Your task to perform on an android device: check storage Image 0: 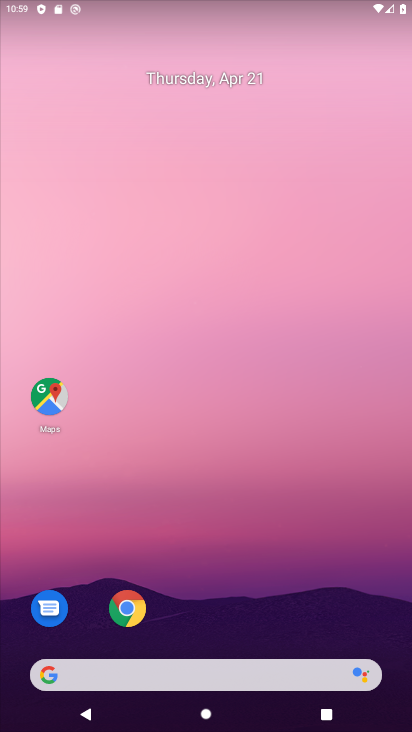
Step 0: drag from (113, 625) to (194, 206)
Your task to perform on an android device: check storage Image 1: 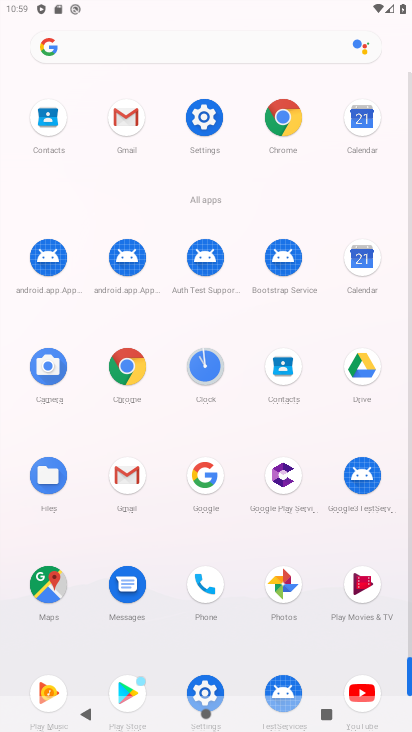
Step 1: click (201, 688)
Your task to perform on an android device: check storage Image 2: 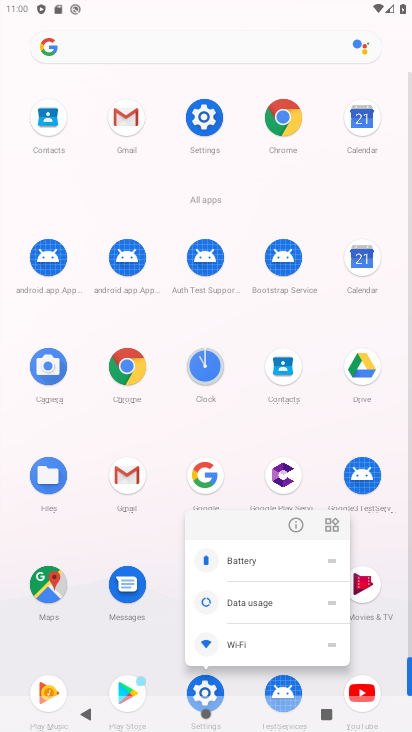
Step 2: click (288, 525)
Your task to perform on an android device: check storage Image 3: 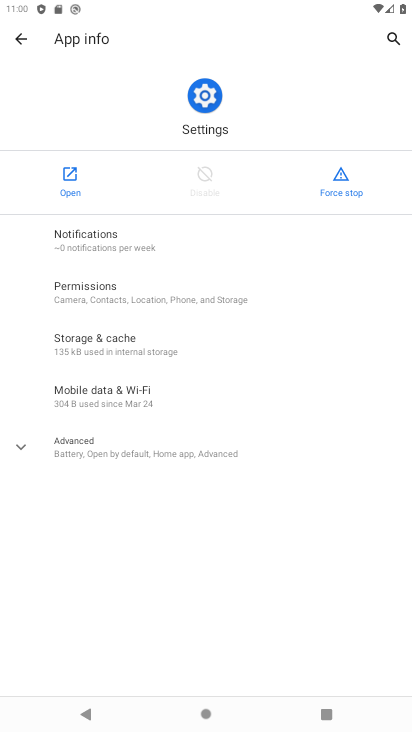
Step 3: click (60, 197)
Your task to perform on an android device: check storage Image 4: 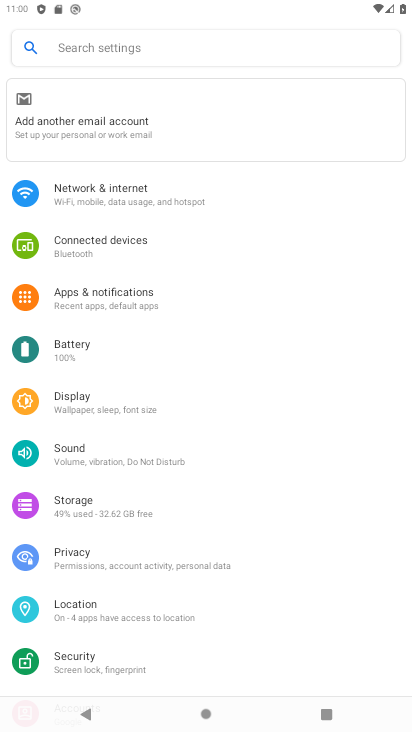
Step 4: click (100, 506)
Your task to perform on an android device: check storage Image 5: 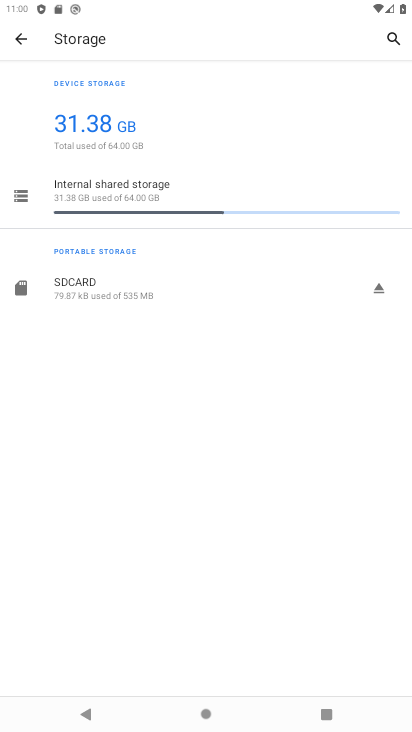
Step 5: task complete